Your task to perform on an android device: install app "Spotify: Music and Podcasts" Image 0: 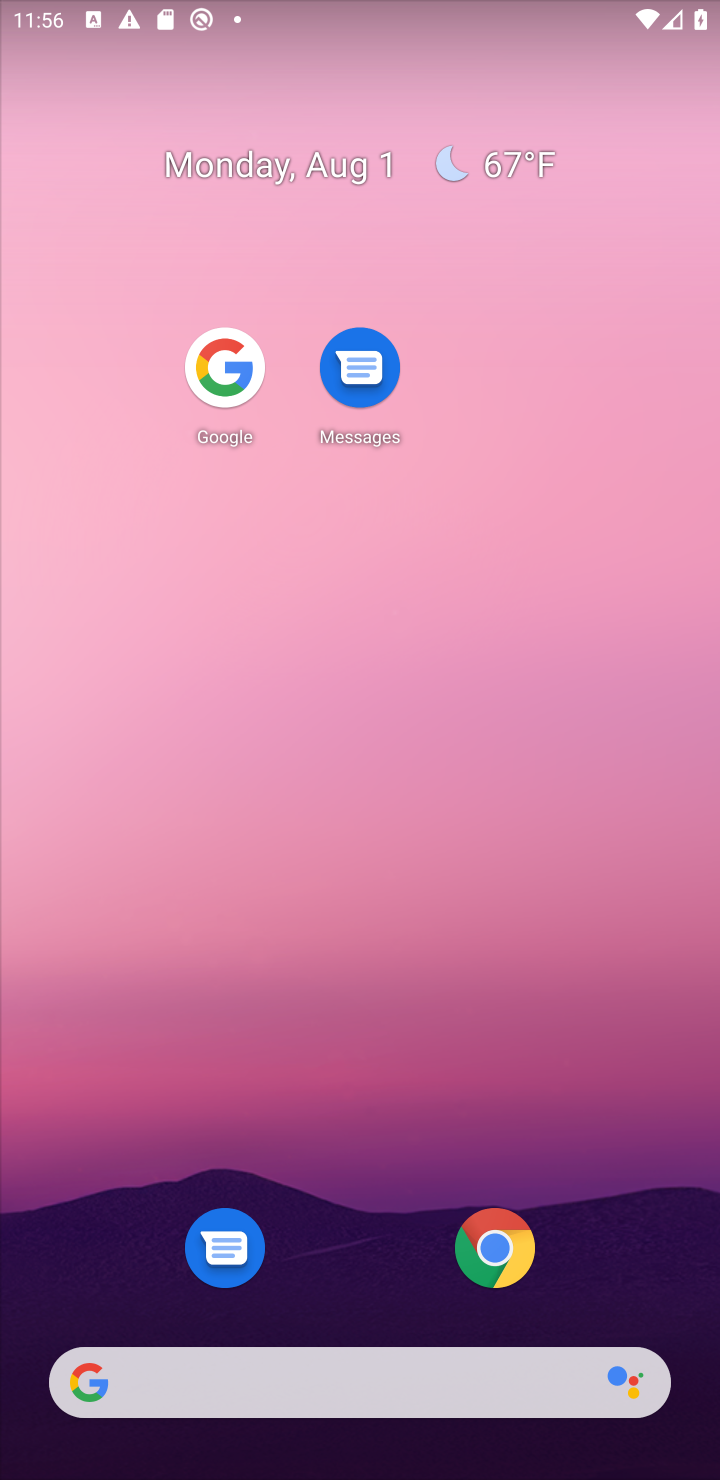
Step 0: drag from (546, 583) to (571, 34)
Your task to perform on an android device: install app "Spotify: Music and Podcasts" Image 1: 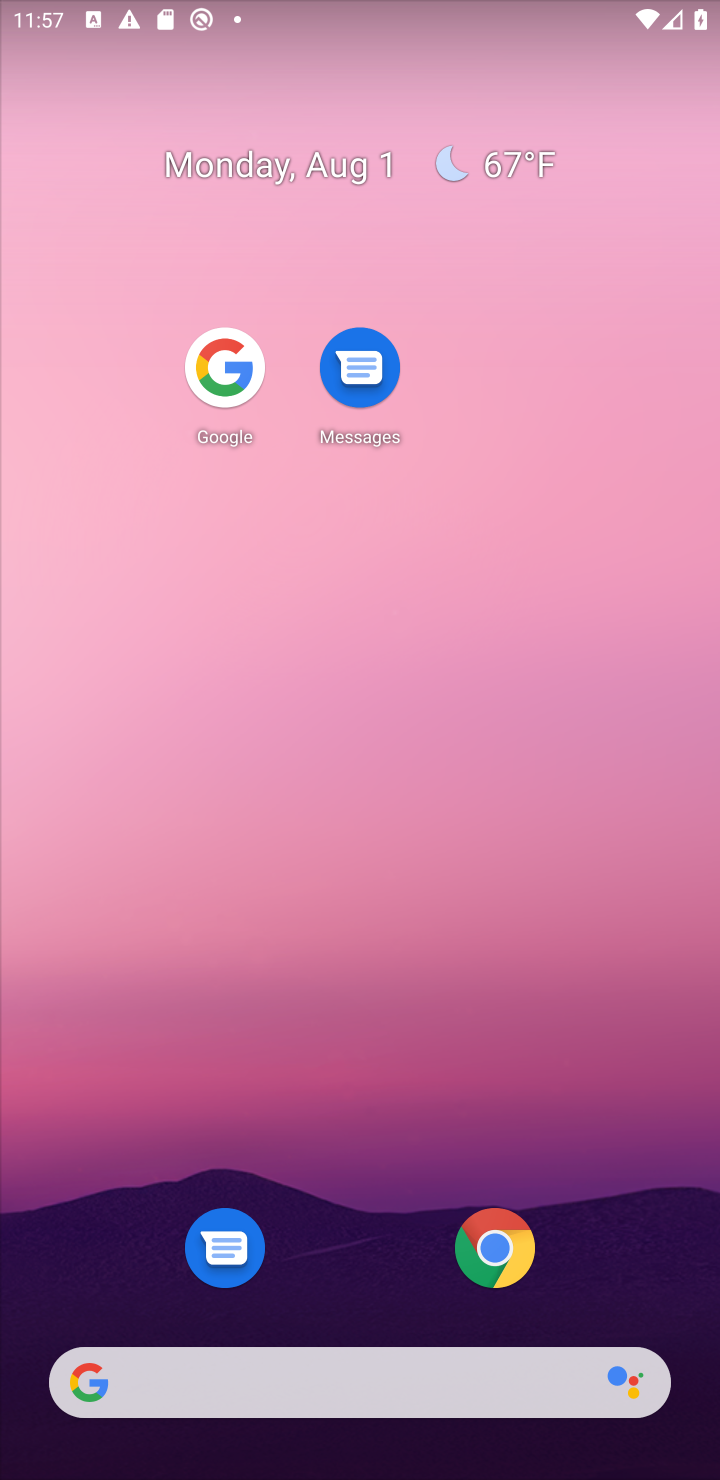
Step 1: drag from (482, 1018) to (564, 176)
Your task to perform on an android device: install app "Spotify: Music and Podcasts" Image 2: 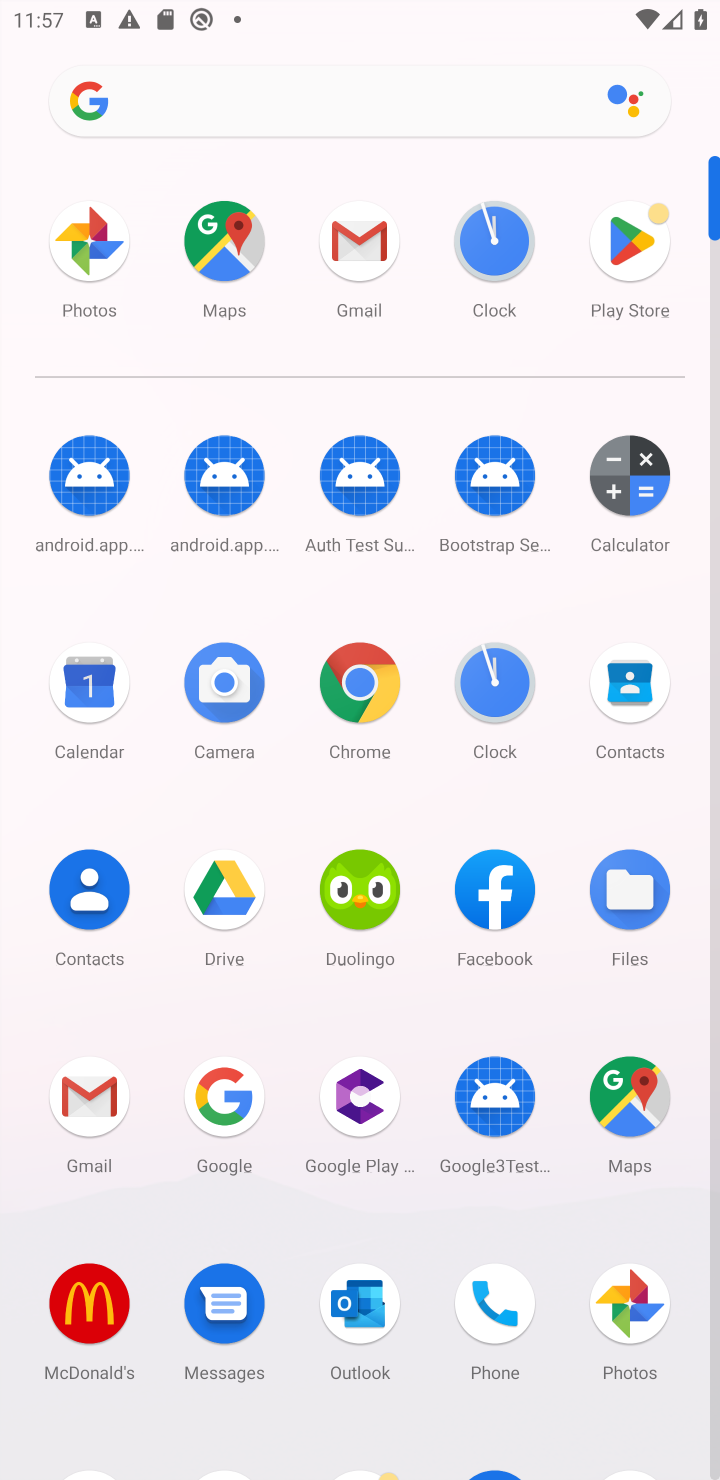
Step 2: drag from (301, 1221) to (290, 527)
Your task to perform on an android device: install app "Spotify: Music and Podcasts" Image 3: 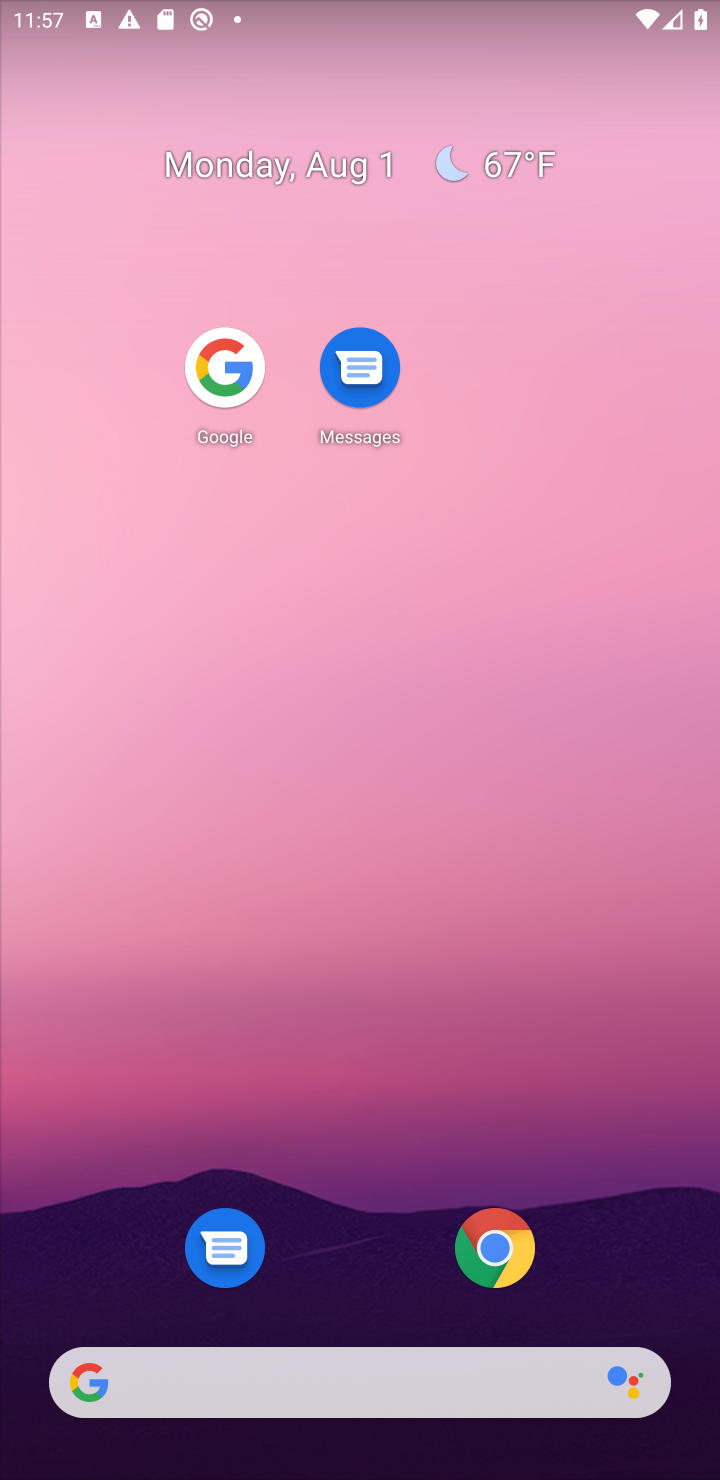
Step 3: drag from (544, 1030) to (523, 15)
Your task to perform on an android device: install app "Spotify: Music and Podcasts" Image 4: 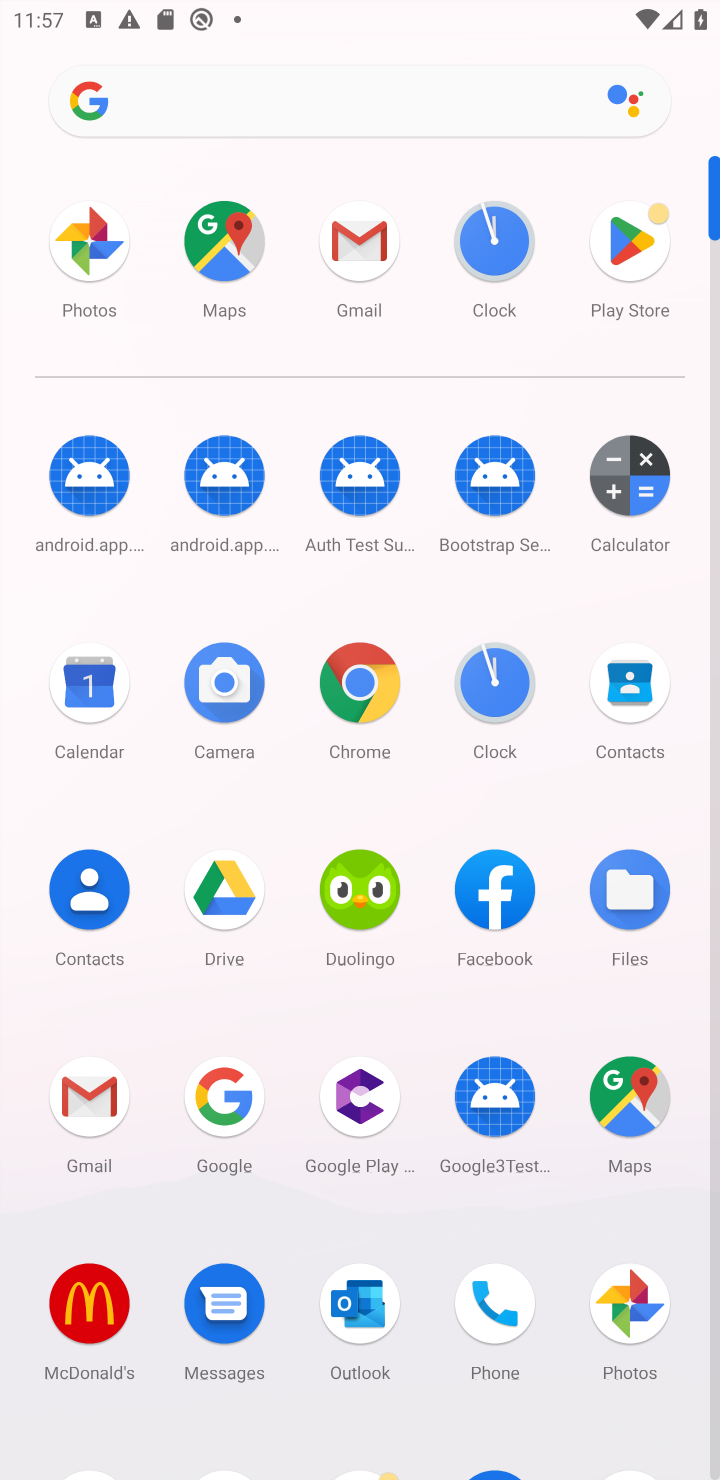
Step 4: drag from (567, 1213) to (513, 288)
Your task to perform on an android device: install app "Spotify: Music and Podcasts" Image 5: 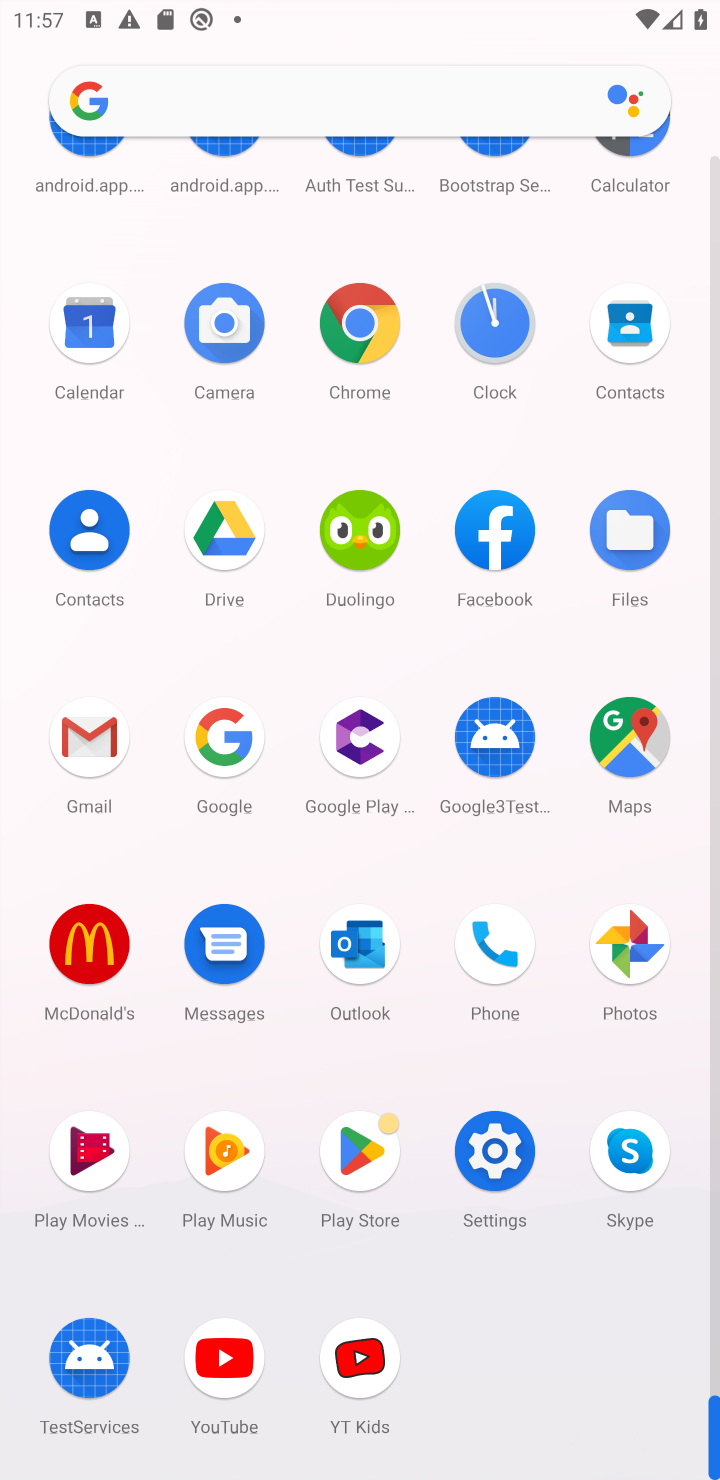
Step 5: click (365, 1164)
Your task to perform on an android device: install app "Spotify: Music and Podcasts" Image 6: 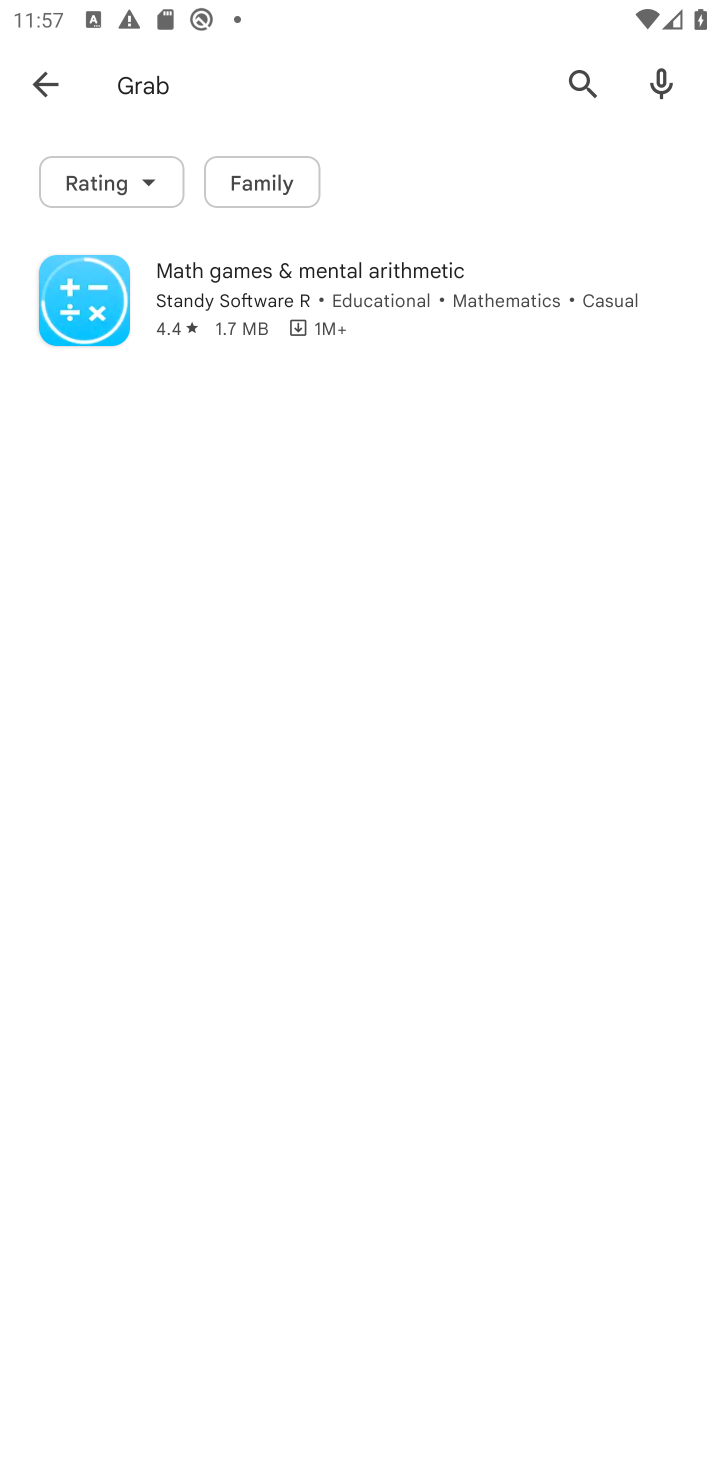
Step 6: click (375, 93)
Your task to perform on an android device: install app "Spotify: Music and Podcasts" Image 7: 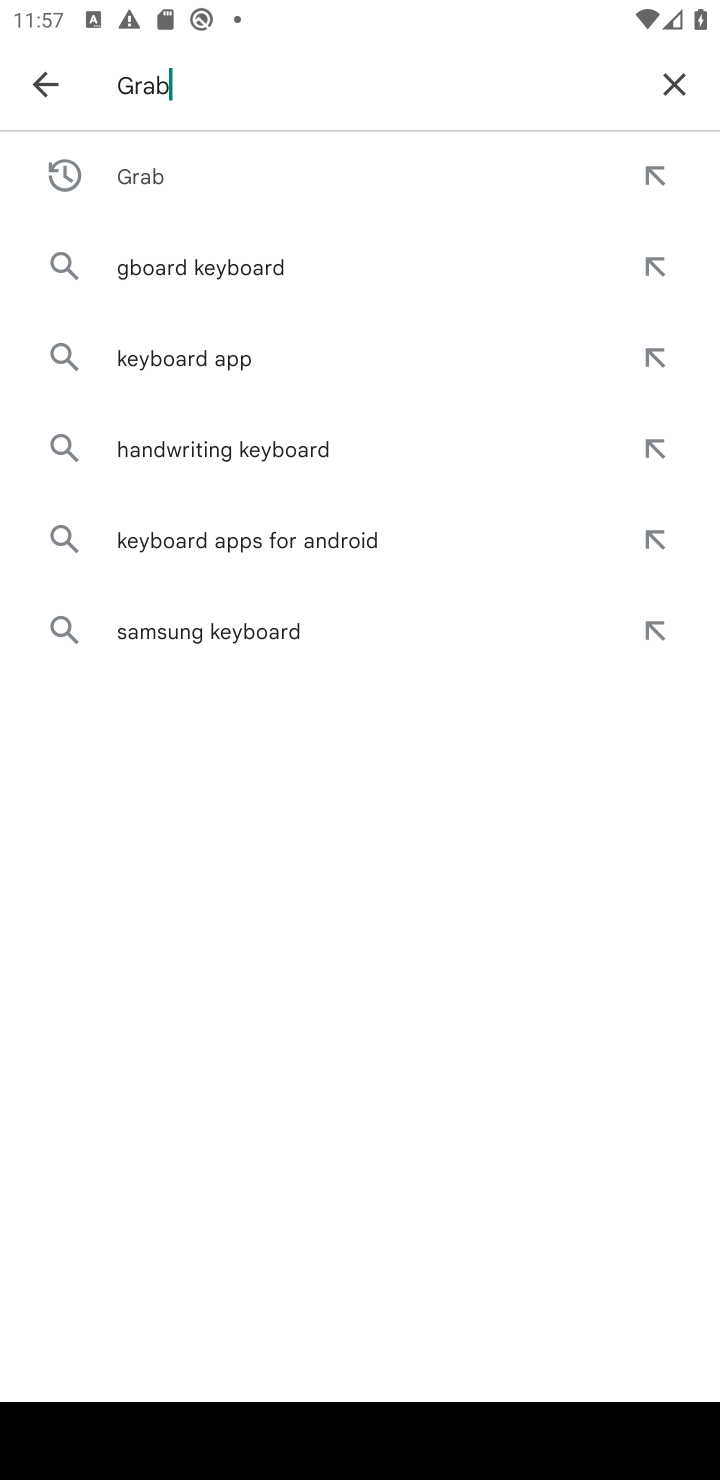
Step 7: click (674, 78)
Your task to perform on an android device: install app "Spotify: Music and Podcasts" Image 8: 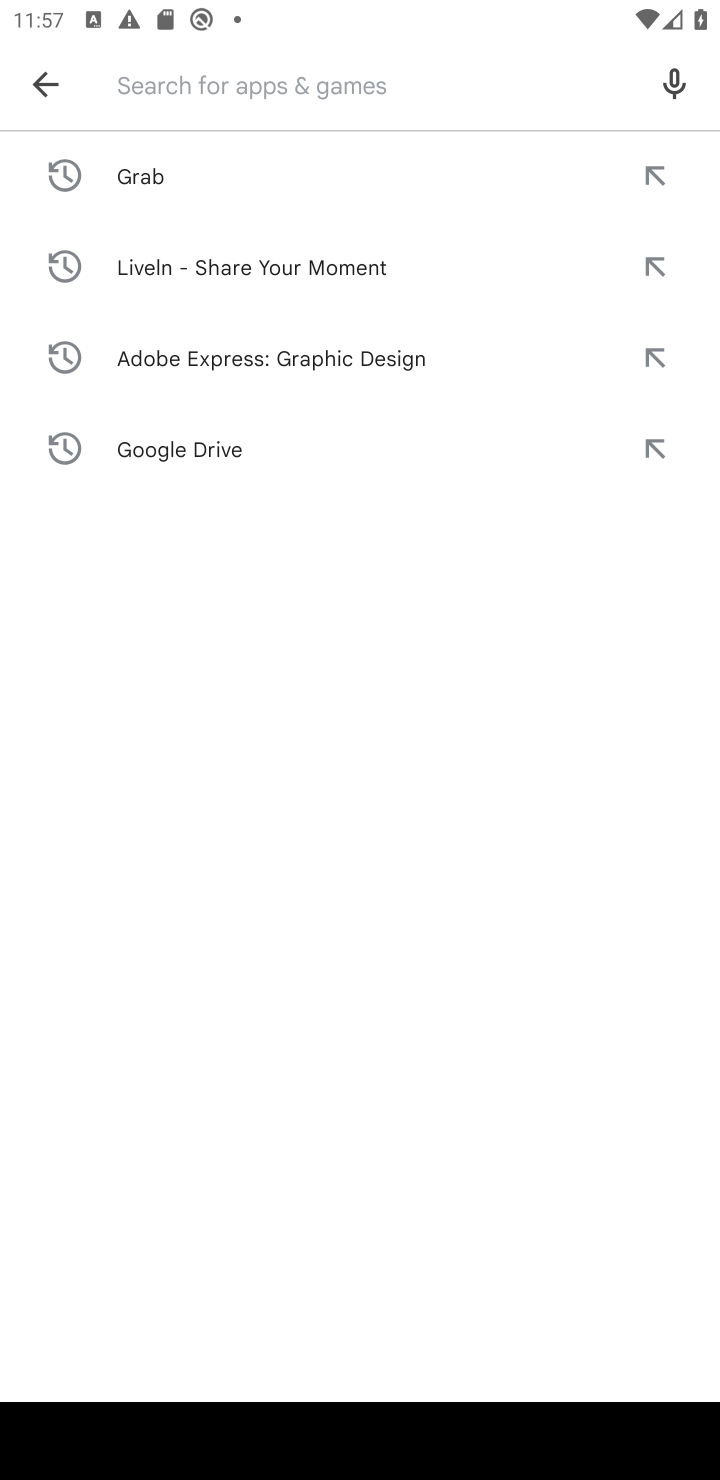
Step 8: type "Spotify: Music and Podcats"
Your task to perform on an android device: install app "Spotify: Music and Podcasts" Image 9: 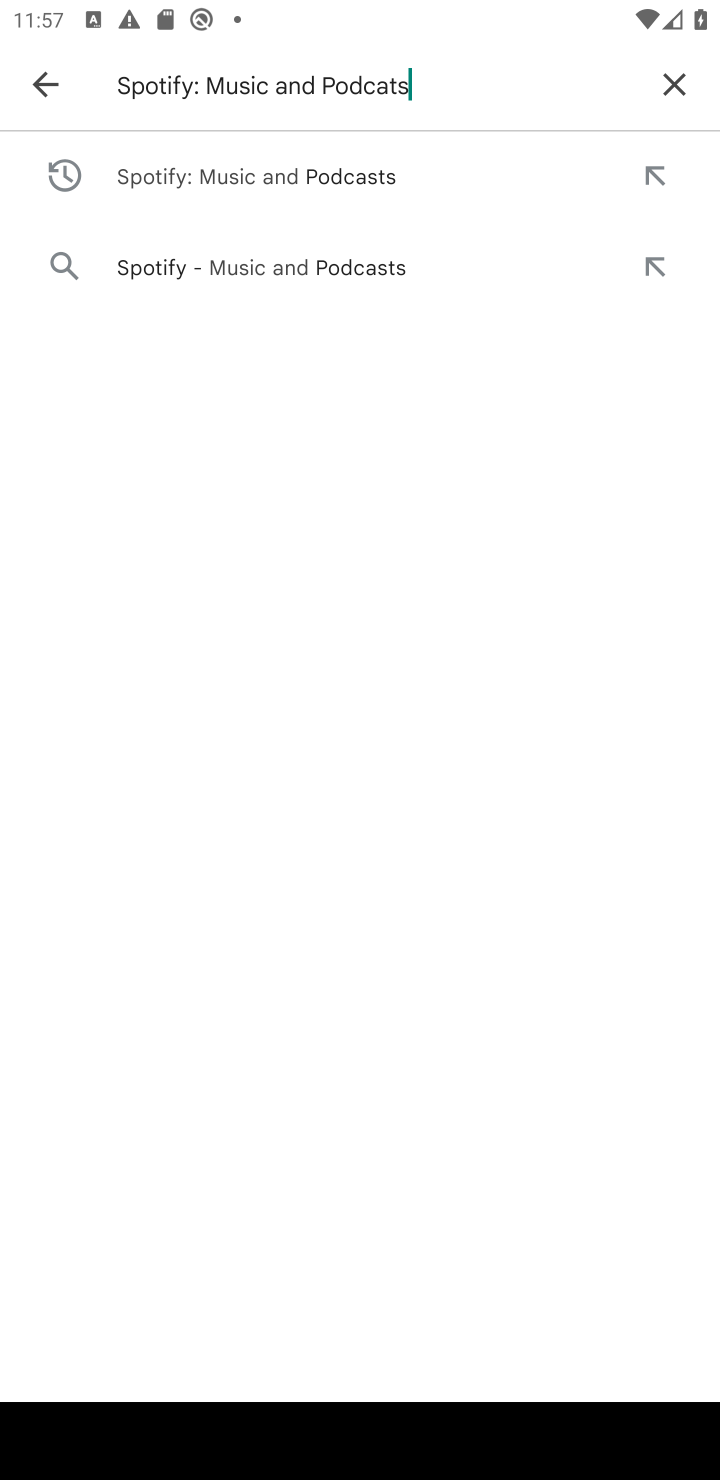
Step 9: press enter
Your task to perform on an android device: install app "Spotify: Music and Podcasts" Image 10: 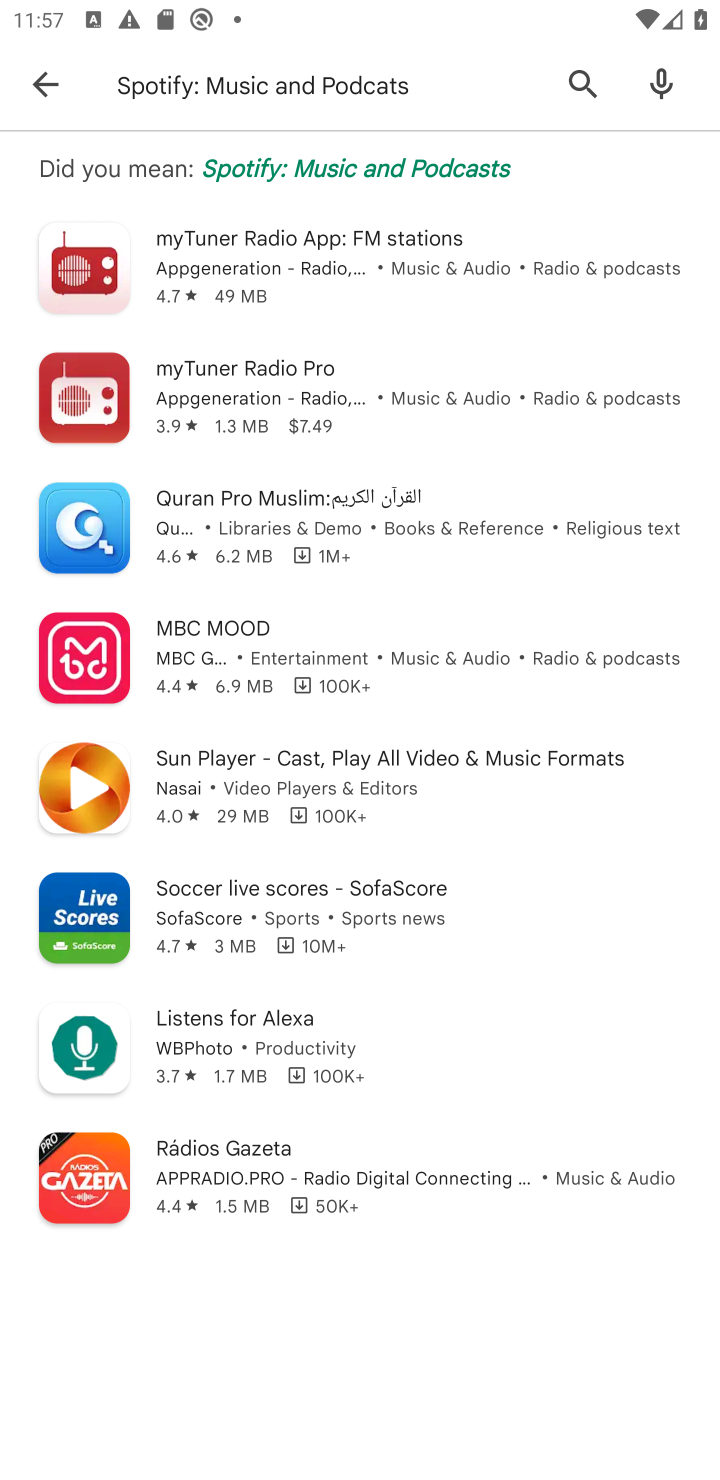
Step 10: click (383, 148)
Your task to perform on an android device: install app "Spotify: Music and Podcasts" Image 11: 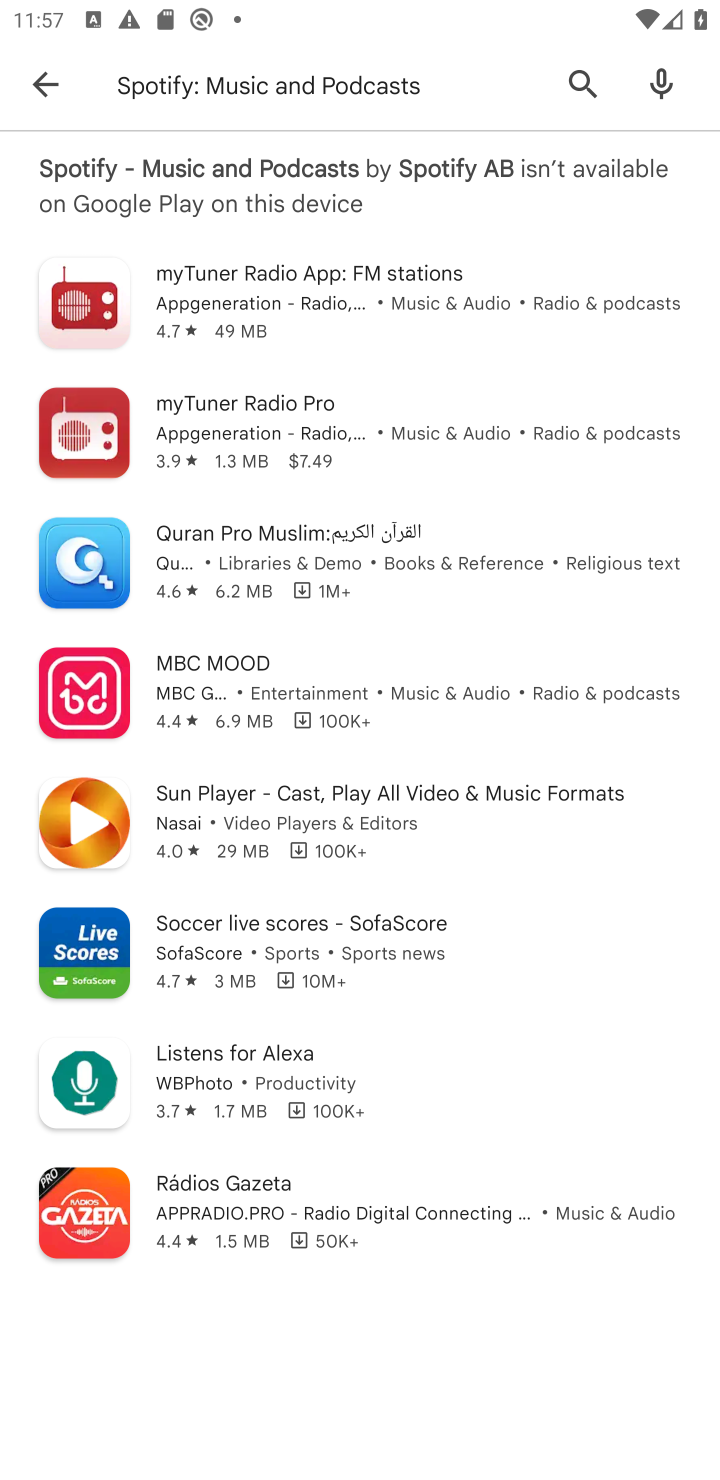
Step 11: task complete